Your task to perform on an android device: turn off location history Image 0: 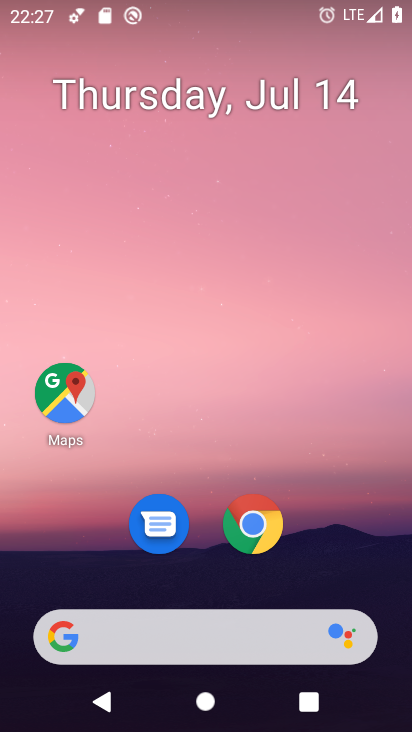
Step 0: drag from (352, 537) to (379, 33)
Your task to perform on an android device: turn off location history Image 1: 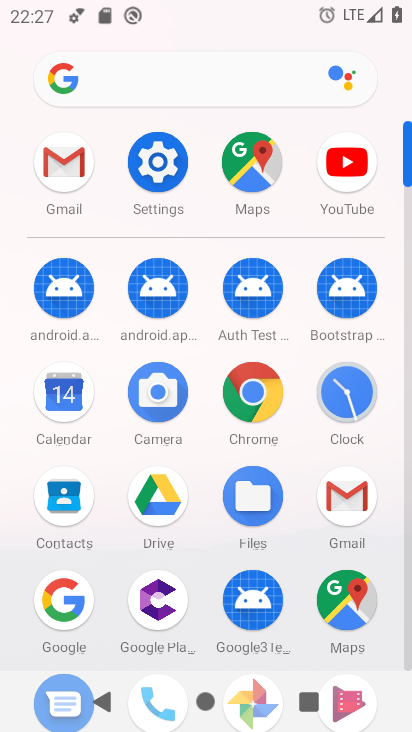
Step 1: click (166, 160)
Your task to perform on an android device: turn off location history Image 2: 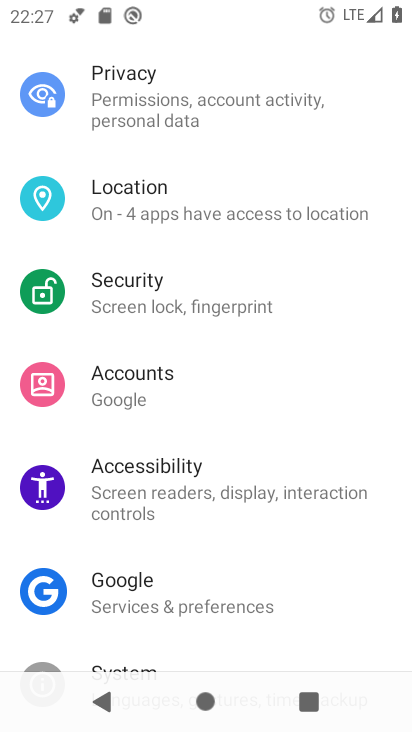
Step 2: click (244, 212)
Your task to perform on an android device: turn off location history Image 3: 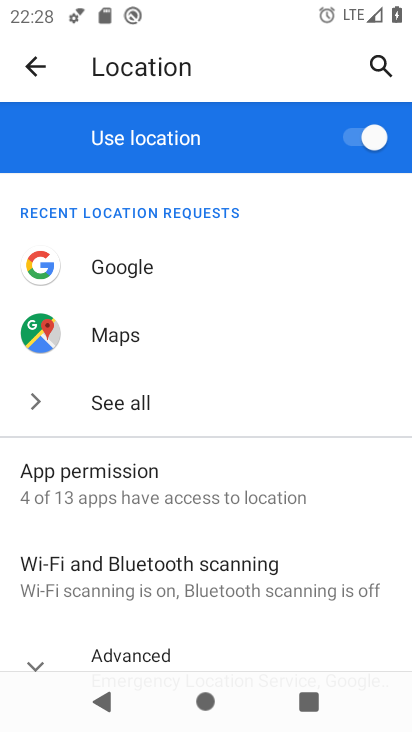
Step 3: drag from (157, 502) to (231, 109)
Your task to perform on an android device: turn off location history Image 4: 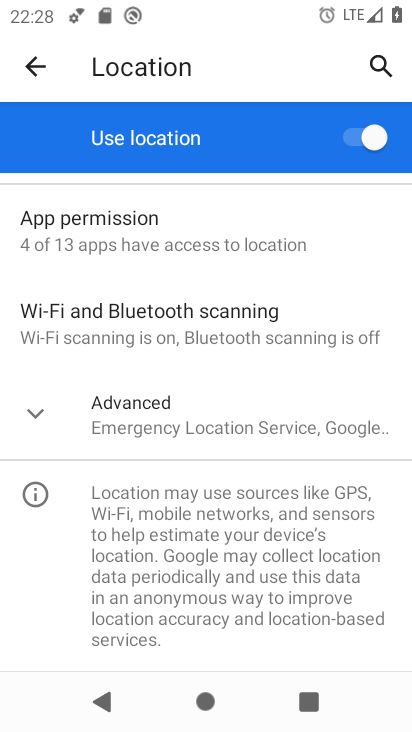
Step 4: click (37, 409)
Your task to perform on an android device: turn off location history Image 5: 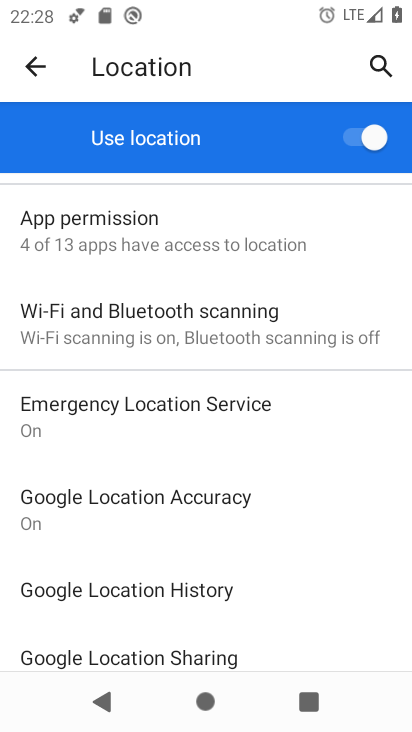
Step 5: click (152, 584)
Your task to perform on an android device: turn off location history Image 6: 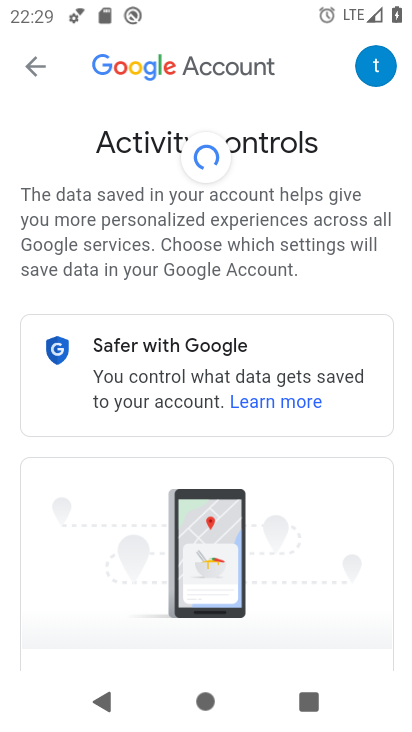
Step 6: drag from (294, 515) to (317, 83)
Your task to perform on an android device: turn off location history Image 7: 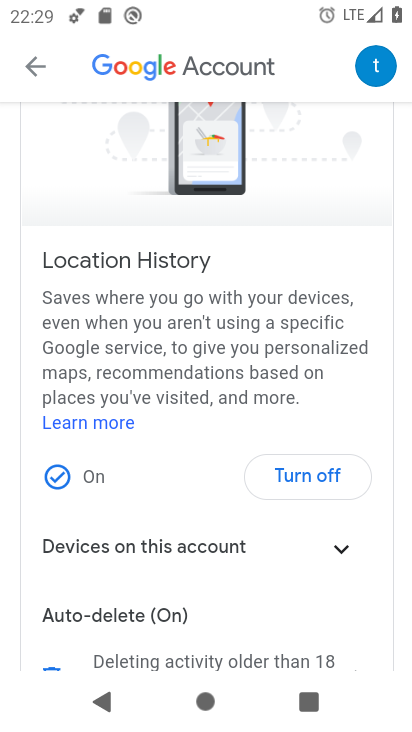
Step 7: click (306, 486)
Your task to perform on an android device: turn off location history Image 8: 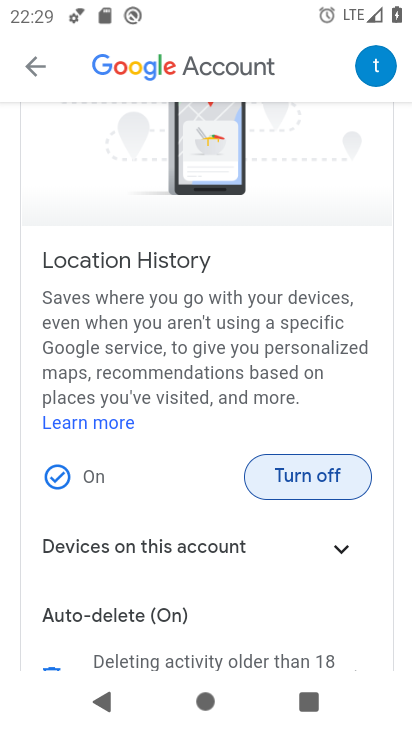
Step 8: click (318, 475)
Your task to perform on an android device: turn off location history Image 9: 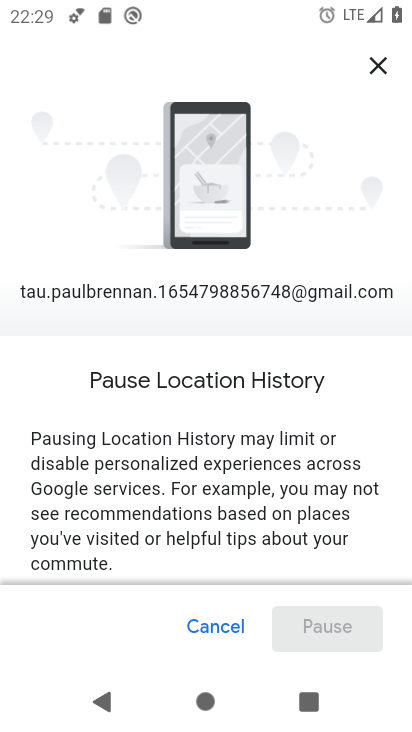
Step 9: drag from (257, 511) to (347, 92)
Your task to perform on an android device: turn off location history Image 10: 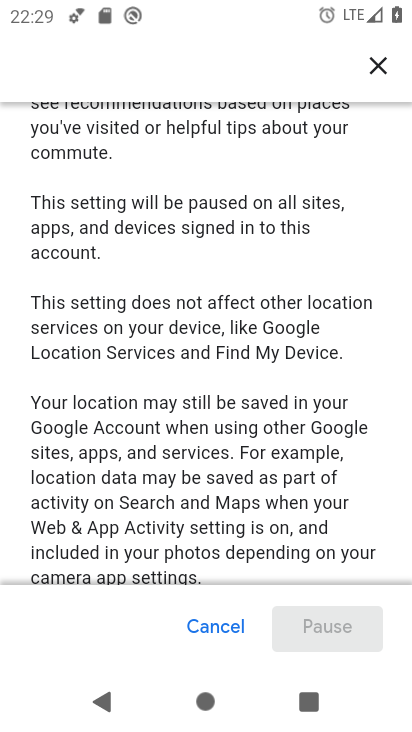
Step 10: drag from (195, 478) to (235, 132)
Your task to perform on an android device: turn off location history Image 11: 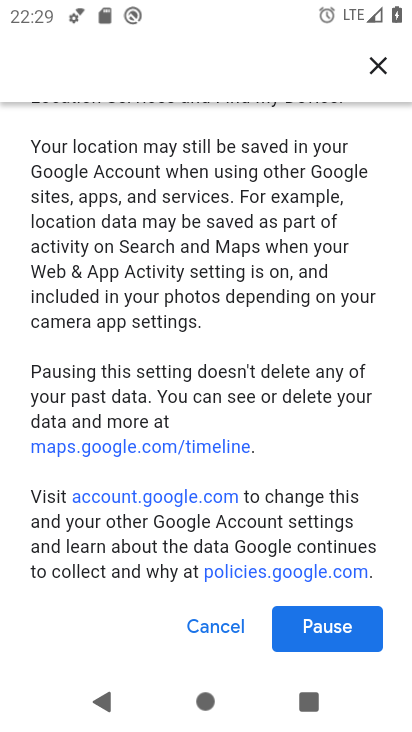
Step 11: click (326, 622)
Your task to perform on an android device: turn off location history Image 12: 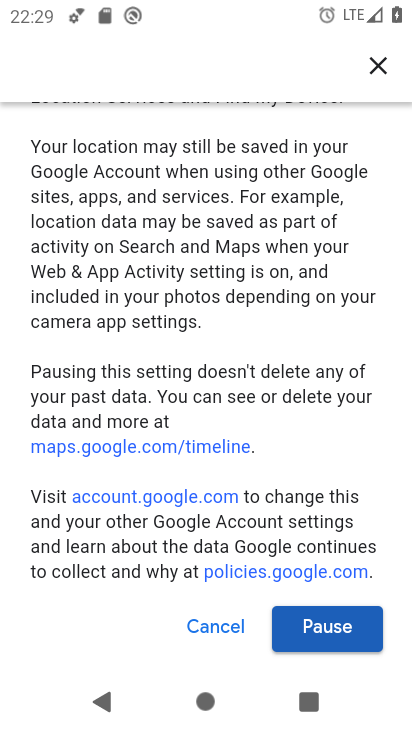
Step 12: click (317, 624)
Your task to perform on an android device: turn off location history Image 13: 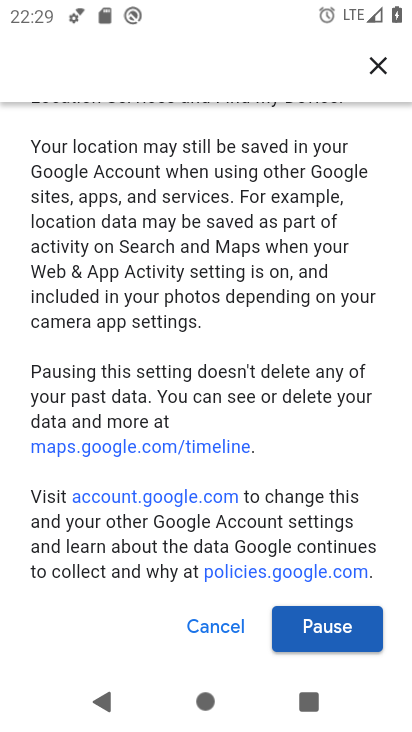
Step 13: click (350, 633)
Your task to perform on an android device: turn off location history Image 14: 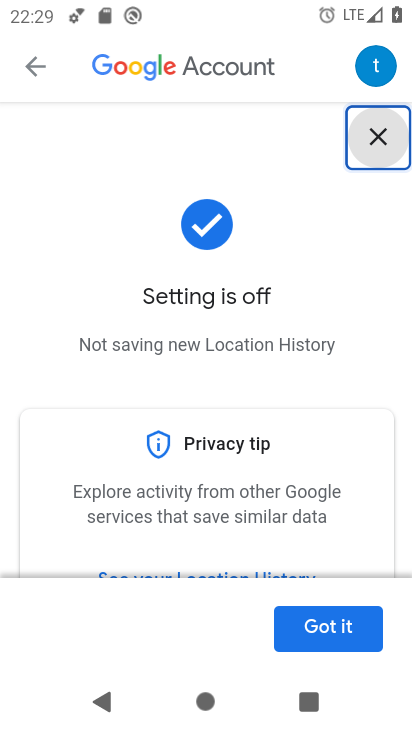
Step 14: click (338, 635)
Your task to perform on an android device: turn off location history Image 15: 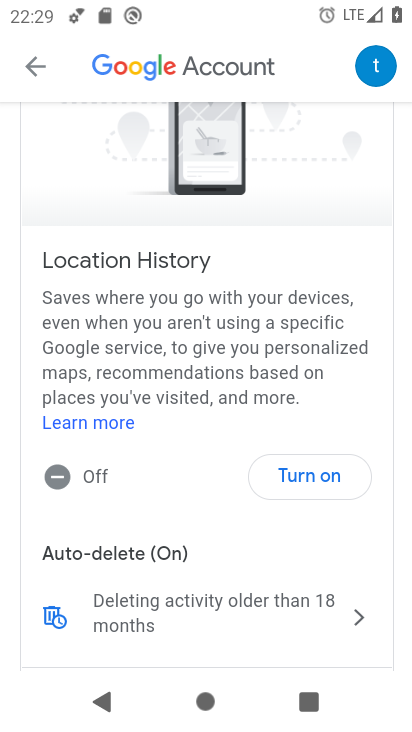
Step 15: task complete